Your task to perform on an android device: set an alarm Image 0: 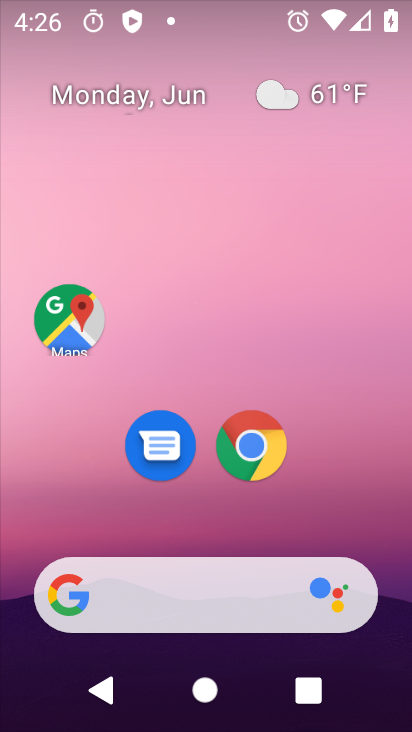
Step 0: drag from (174, 23) to (145, 2)
Your task to perform on an android device: set an alarm Image 1: 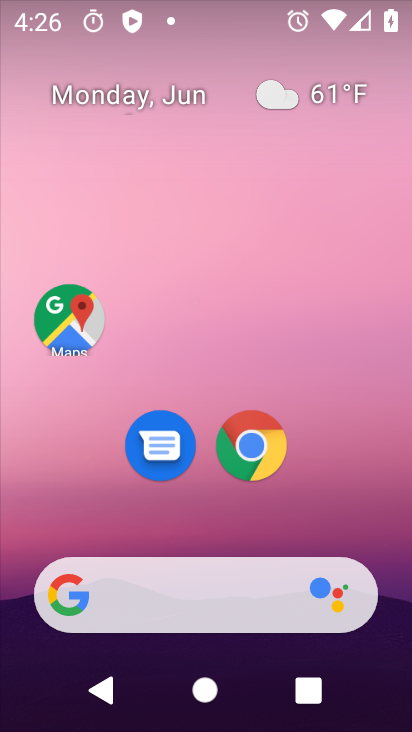
Step 1: drag from (196, 522) to (181, 112)
Your task to perform on an android device: set an alarm Image 2: 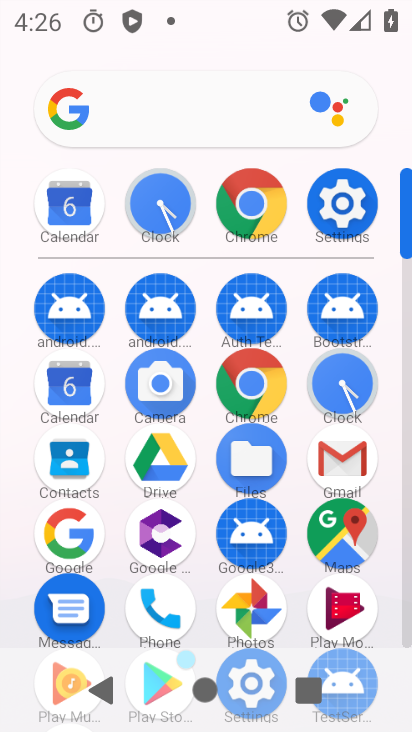
Step 2: click (153, 209)
Your task to perform on an android device: set an alarm Image 3: 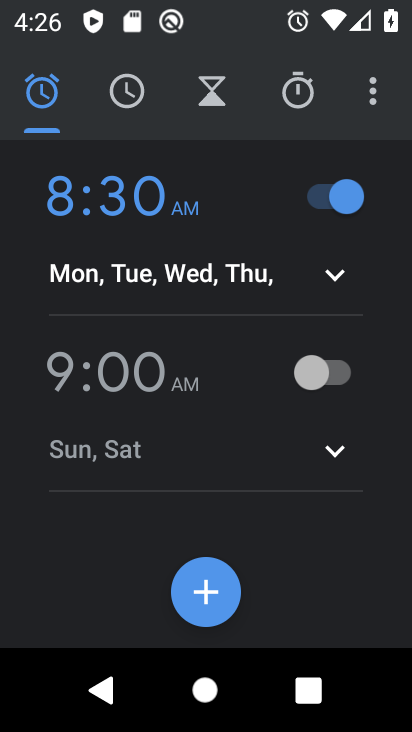
Step 3: click (349, 382)
Your task to perform on an android device: set an alarm Image 4: 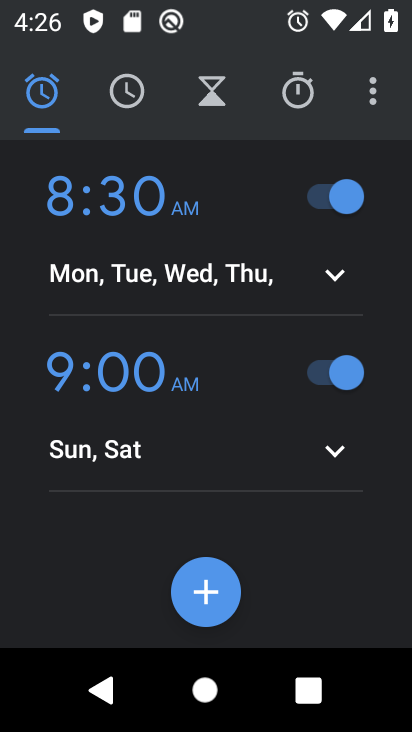
Step 4: task complete